Your task to perform on an android device: Open Maps and search for coffee Image 0: 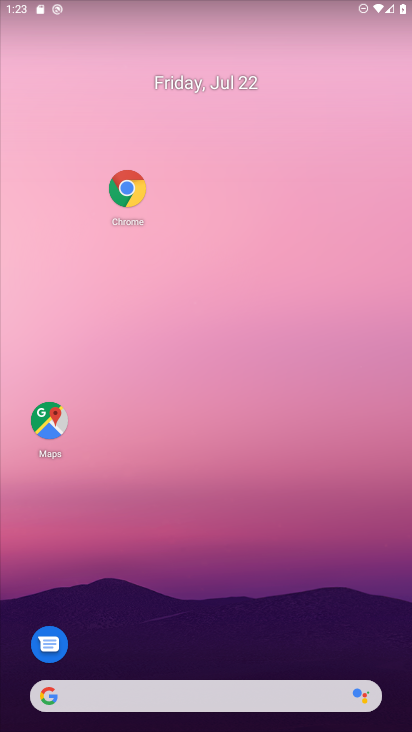
Step 0: click (56, 429)
Your task to perform on an android device: Open Maps and search for coffee Image 1: 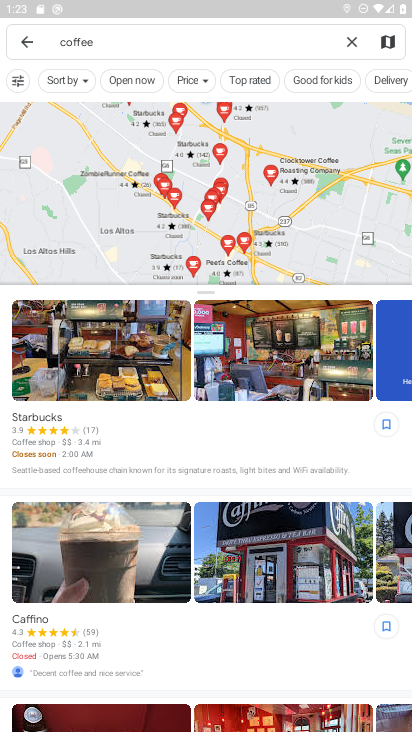
Step 1: task complete